Your task to perform on an android device: add a contact Image 0: 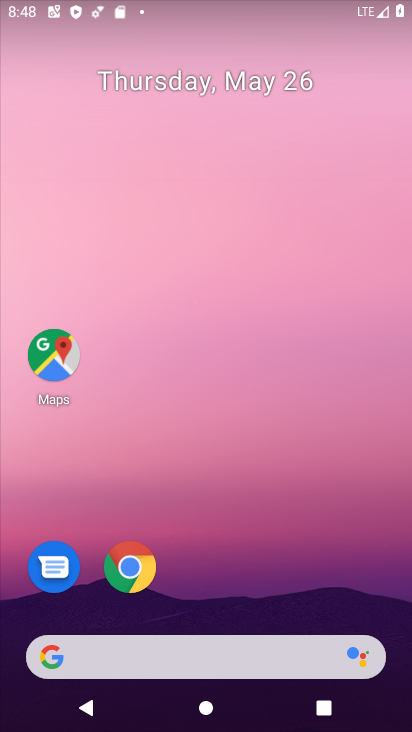
Step 0: drag from (145, 669) to (394, 80)
Your task to perform on an android device: add a contact Image 1: 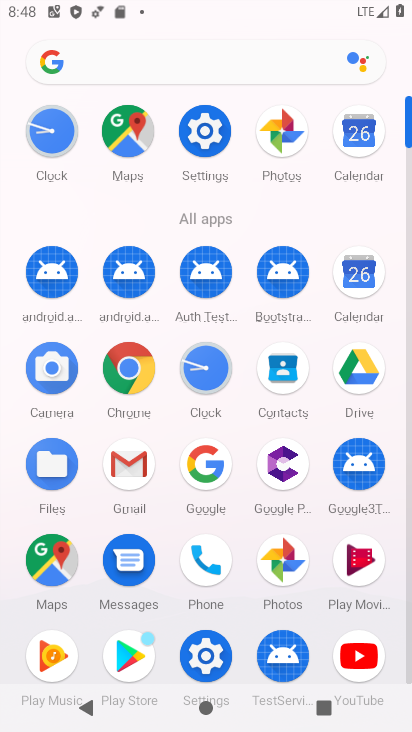
Step 1: click (291, 379)
Your task to perform on an android device: add a contact Image 2: 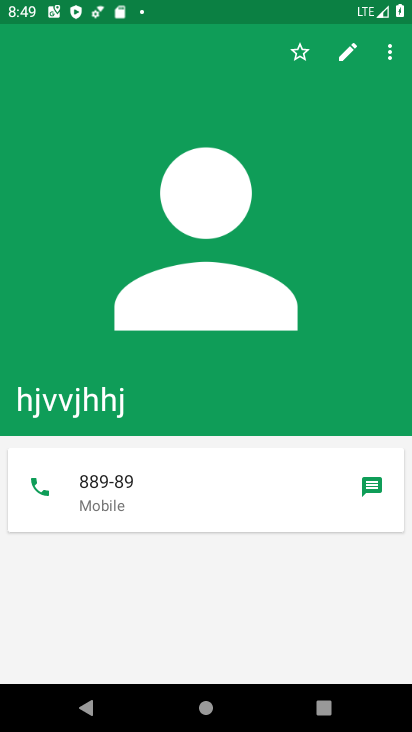
Step 2: press back button
Your task to perform on an android device: add a contact Image 3: 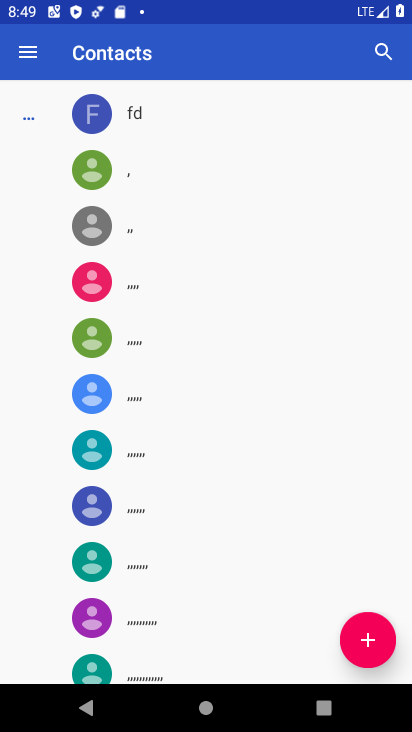
Step 3: click (373, 648)
Your task to perform on an android device: add a contact Image 4: 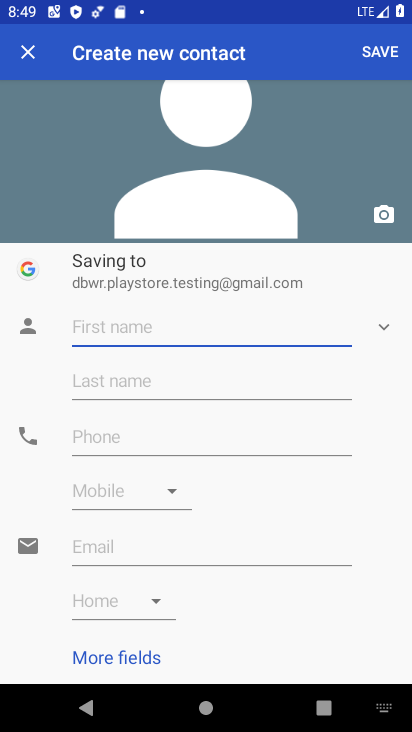
Step 4: type "hhj"
Your task to perform on an android device: add a contact Image 5: 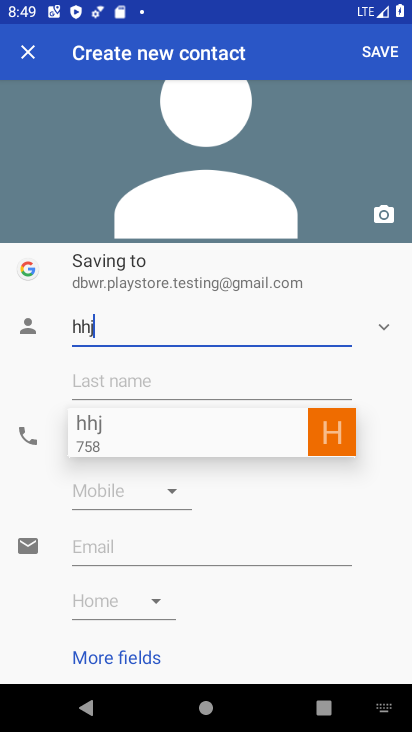
Step 5: type "kjhk"
Your task to perform on an android device: add a contact Image 6: 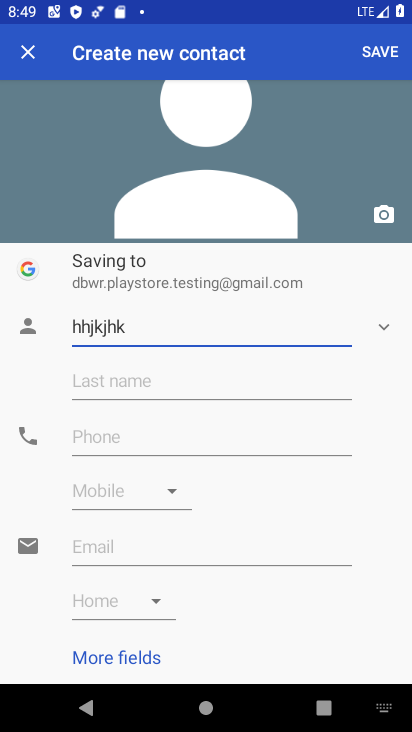
Step 6: click (210, 440)
Your task to perform on an android device: add a contact Image 7: 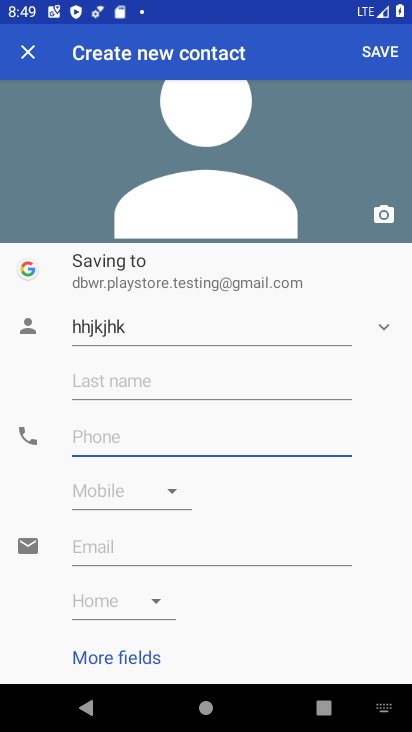
Step 7: type "t879"
Your task to perform on an android device: add a contact Image 8: 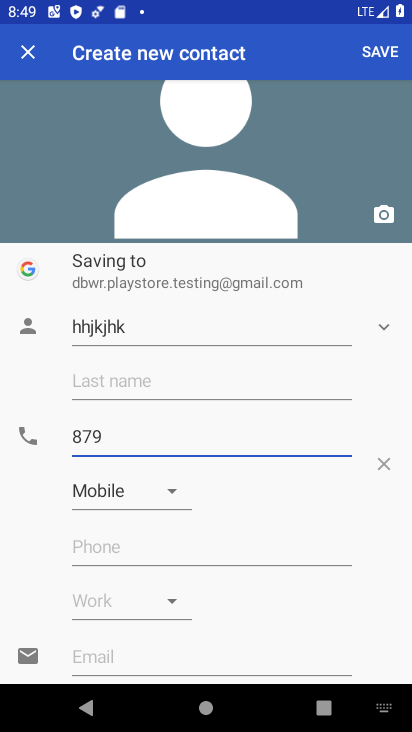
Step 8: click (390, 56)
Your task to perform on an android device: add a contact Image 9: 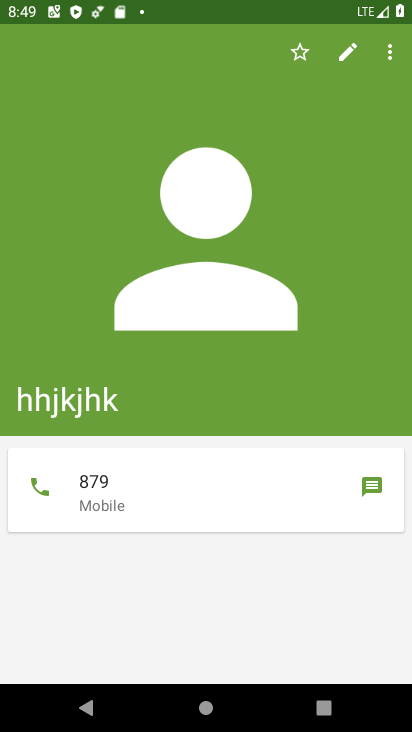
Step 9: task complete